Your task to perform on an android device: choose inbox layout in the gmail app Image 0: 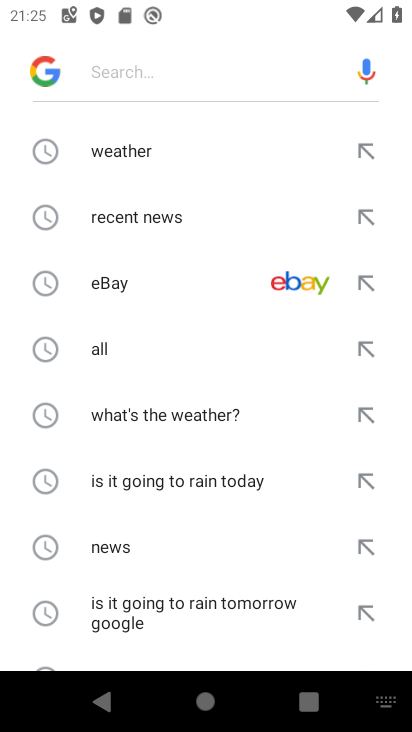
Step 0: press home button
Your task to perform on an android device: choose inbox layout in the gmail app Image 1: 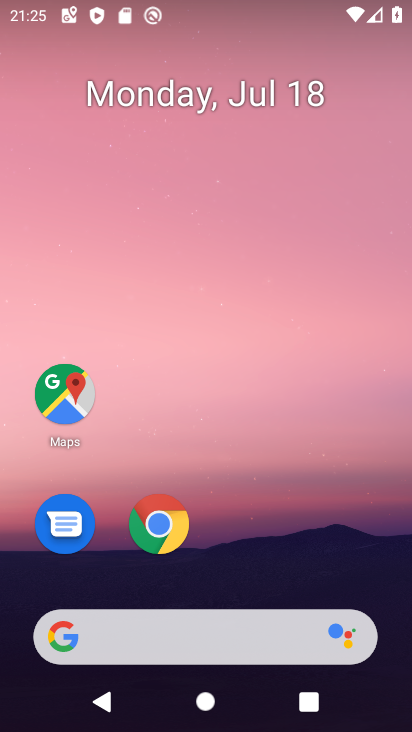
Step 1: drag from (289, 525) to (336, 121)
Your task to perform on an android device: choose inbox layout in the gmail app Image 2: 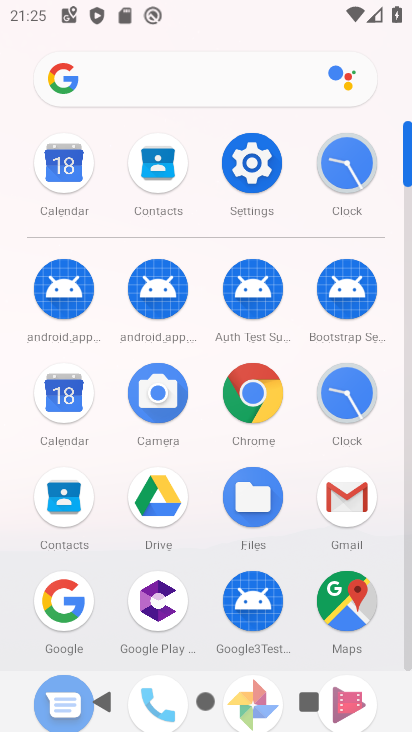
Step 2: click (339, 500)
Your task to perform on an android device: choose inbox layout in the gmail app Image 3: 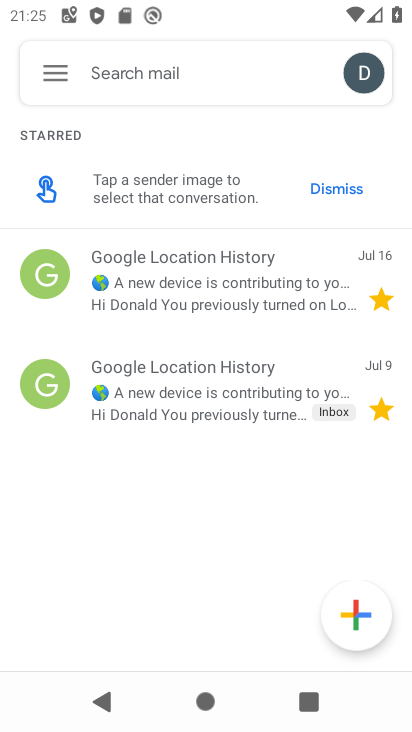
Step 3: click (45, 77)
Your task to perform on an android device: choose inbox layout in the gmail app Image 4: 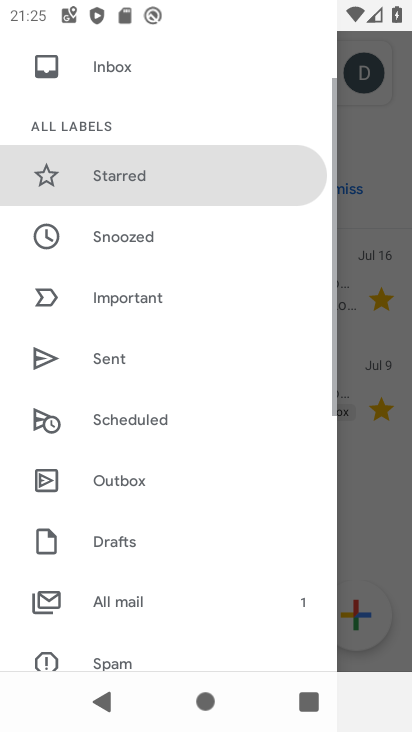
Step 4: drag from (201, 601) to (254, 164)
Your task to perform on an android device: choose inbox layout in the gmail app Image 5: 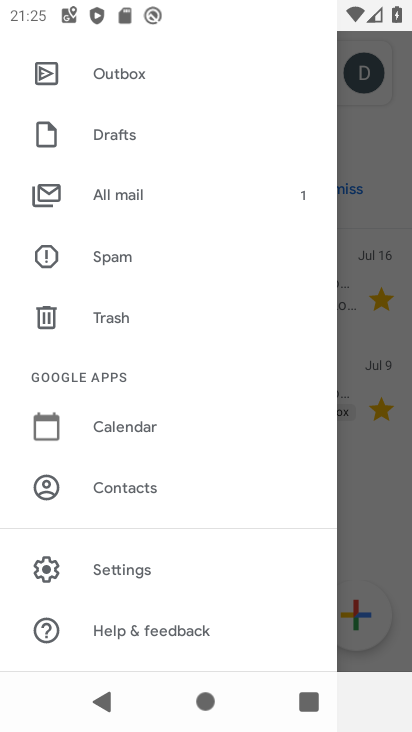
Step 5: click (130, 564)
Your task to perform on an android device: choose inbox layout in the gmail app Image 6: 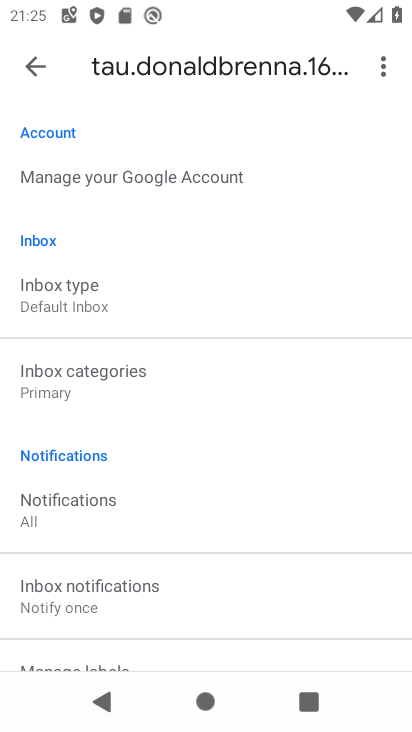
Step 6: click (82, 291)
Your task to perform on an android device: choose inbox layout in the gmail app Image 7: 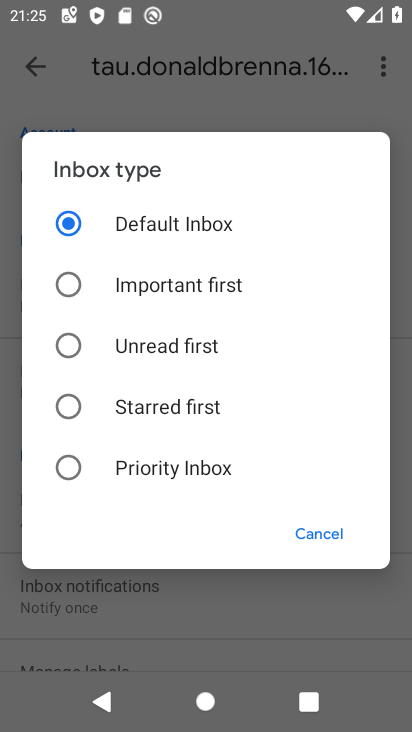
Step 7: click (74, 279)
Your task to perform on an android device: choose inbox layout in the gmail app Image 8: 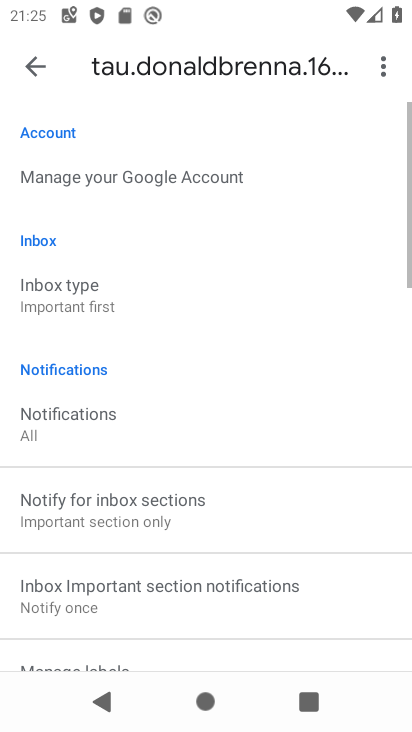
Step 8: task complete